Your task to perform on an android device: set an alarm Image 0: 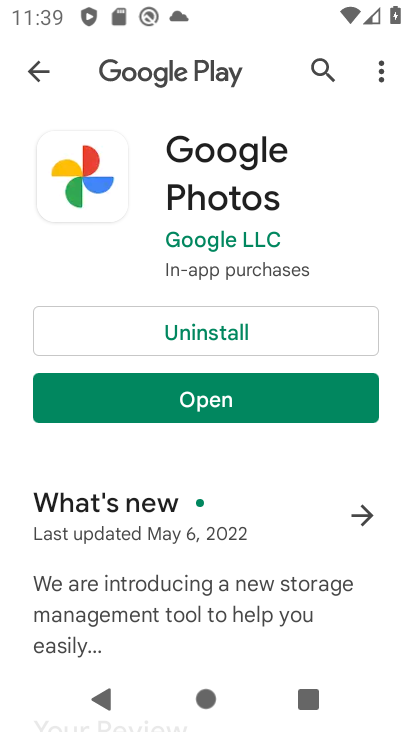
Step 0: press home button
Your task to perform on an android device: set an alarm Image 1: 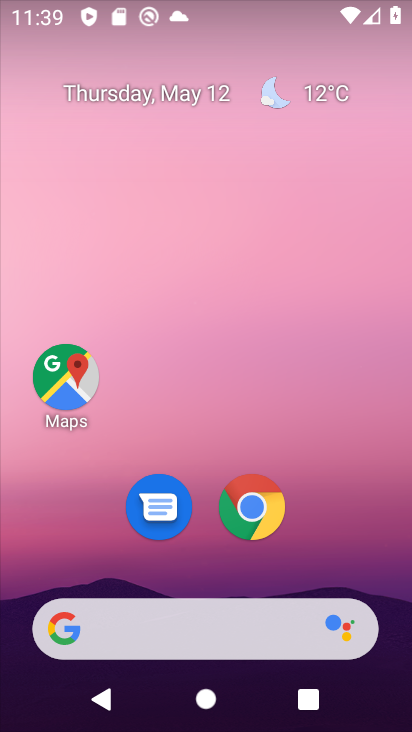
Step 1: drag from (197, 597) to (225, 105)
Your task to perform on an android device: set an alarm Image 2: 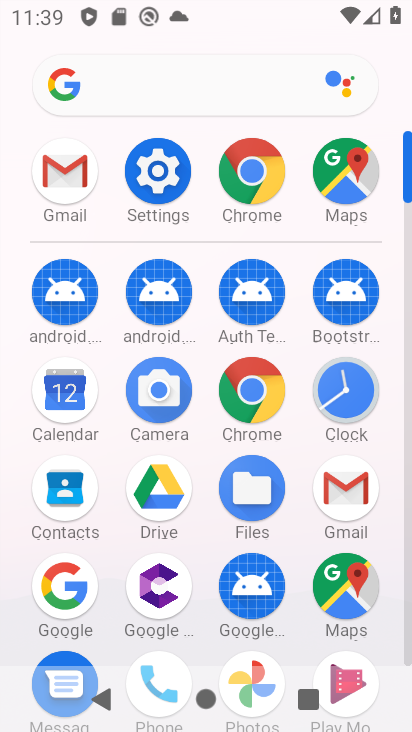
Step 2: drag from (198, 547) to (190, 269)
Your task to perform on an android device: set an alarm Image 3: 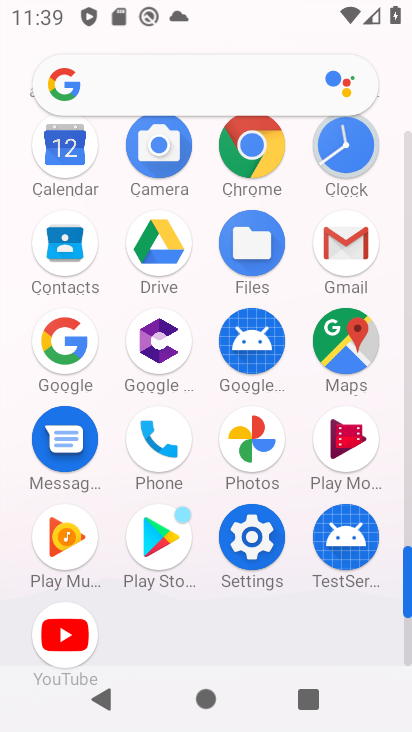
Step 3: click (358, 149)
Your task to perform on an android device: set an alarm Image 4: 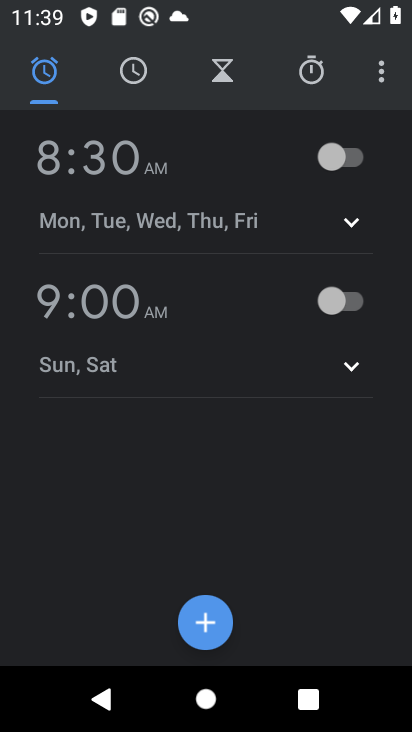
Step 4: click (377, 144)
Your task to perform on an android device: set an alarm Image 5: 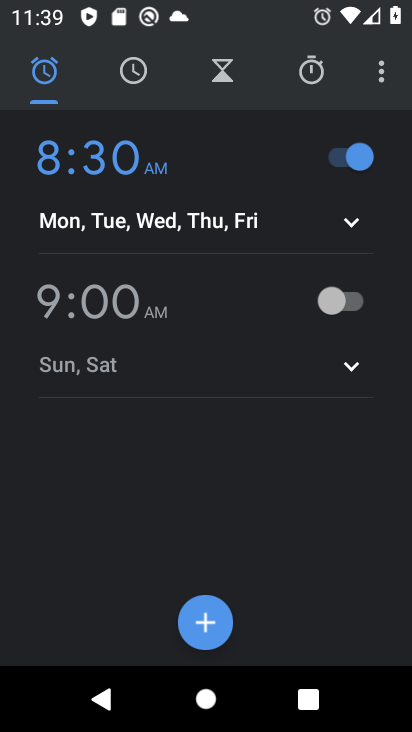
Step 5: task complete